Your task to perform on an android device: see tabs open on other devices in the chrome app Image 0: 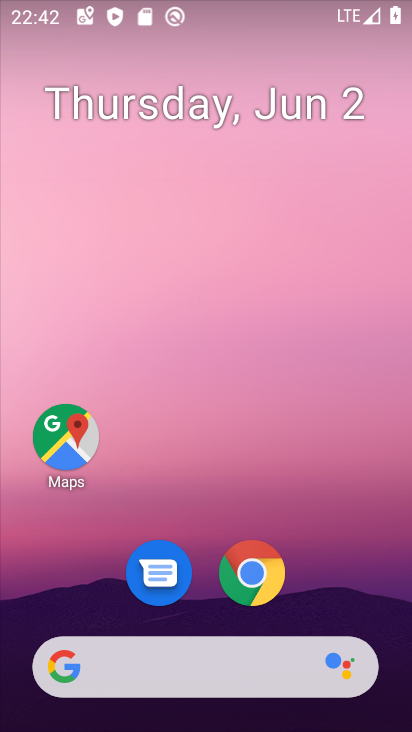
Step 0: click (256, 569)
Your task to perform on an android device: see tabs open on other devices in the chrome app Image 1: 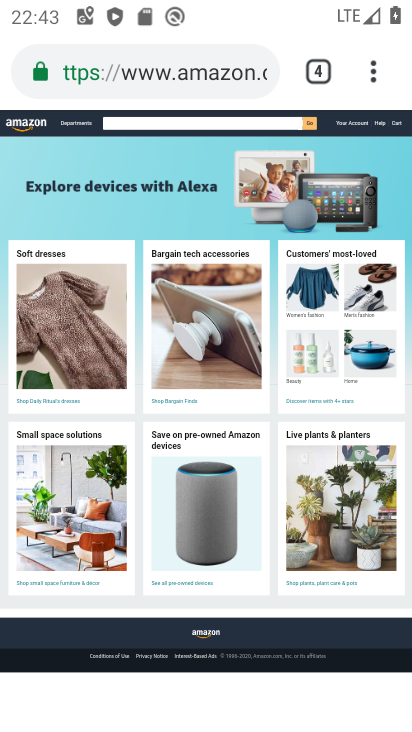
Step 1: click (365, 75)
Your task to perform on an android device: see tabs open on other devices in the chrome app Image 2: 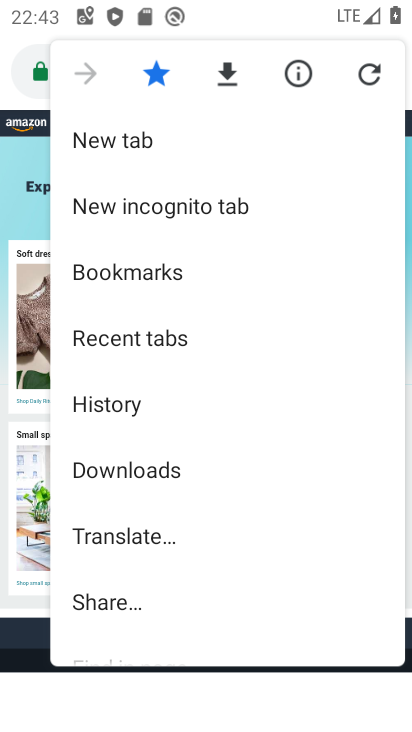
Step 2: click (173, 337)
Your task to perform on an android device: see tabs open on other devices in the chrome app Image 3: 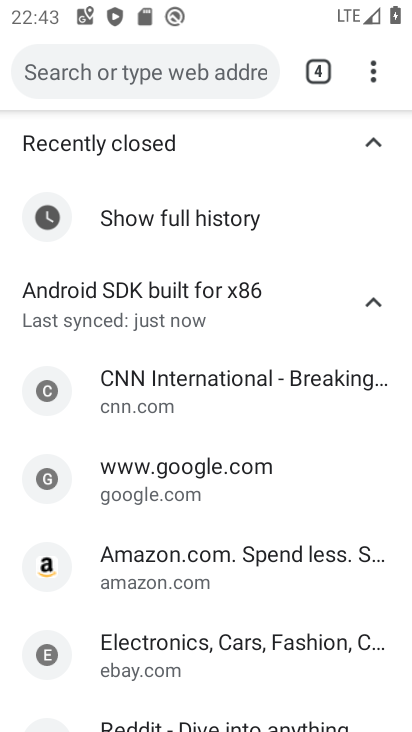
Step 3: task complete